Your task to perform on an android device: Open Android settings Image 0: 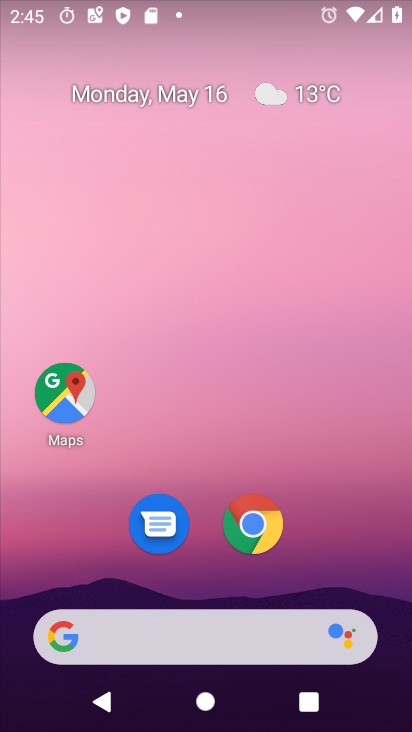
Step 0: drag from (372, 550) to (349, 120)
Your task to perform on an android device: Open Android settings Image 1: 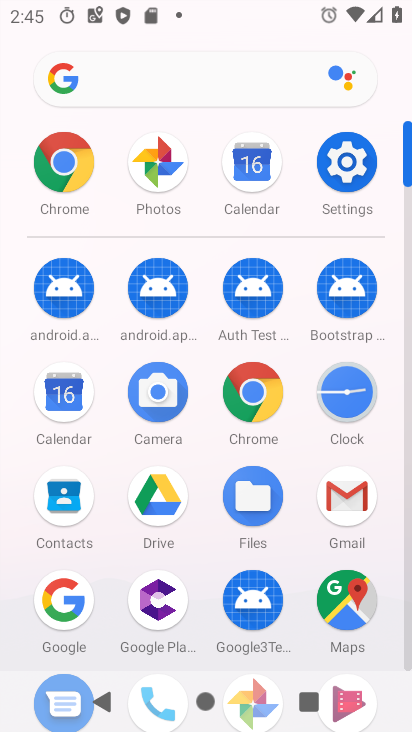
Step 1: click (353, 165)
Your task to perform on an android device: Open Android settings Image 2: 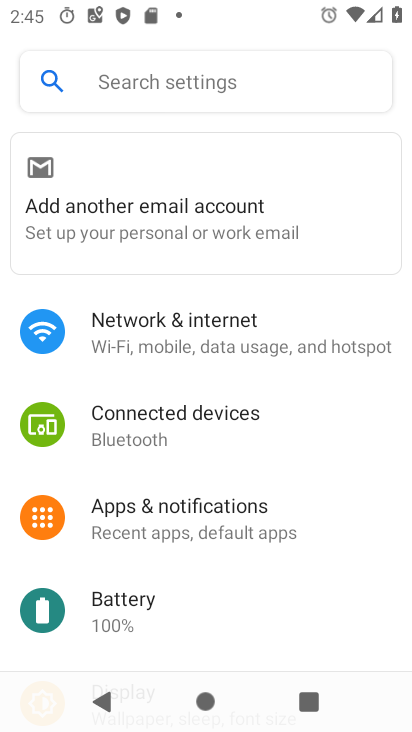
Step 2: drag from (224, 597) to (231, 135)
Your task to perform on an android device: Open Android settings Image 3: 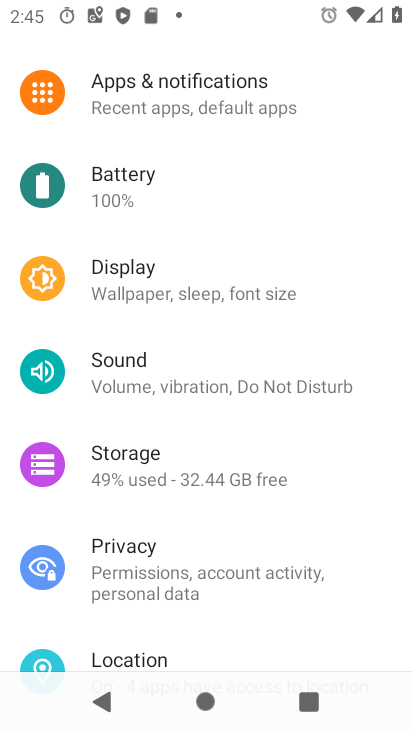
Step 3: drag from (241, 609) to (254, 91)
Your task to perform on an android device: Open Android settings Image 4: 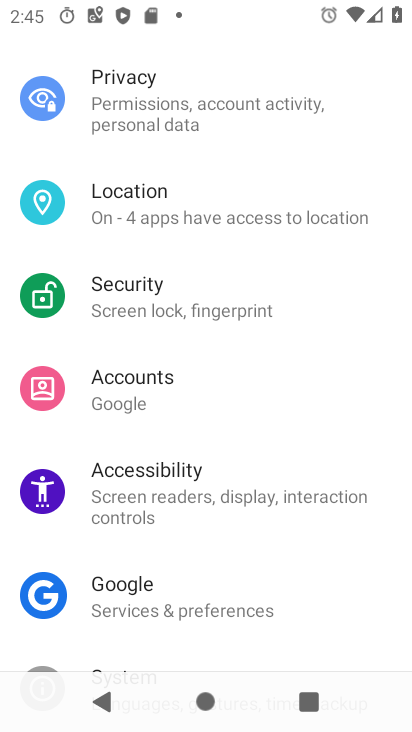
Step 4: drag from (236, 535) to (226, 103)
Your task to perform on an android device: Open Android settings Image 5: 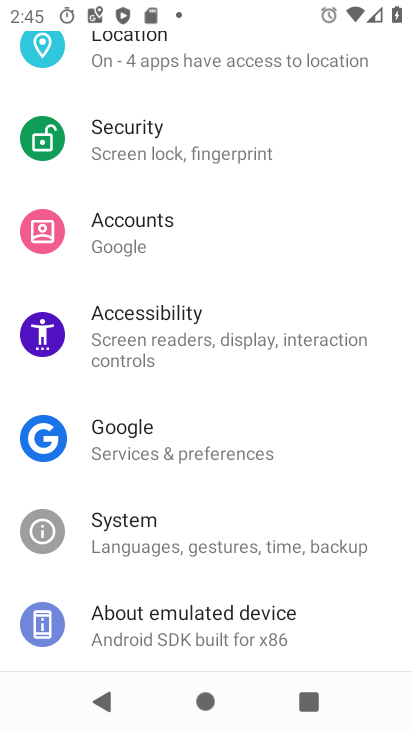
Step 5: click (220, 623)
Your task to perform on an android device: Open Android settings Image 6: 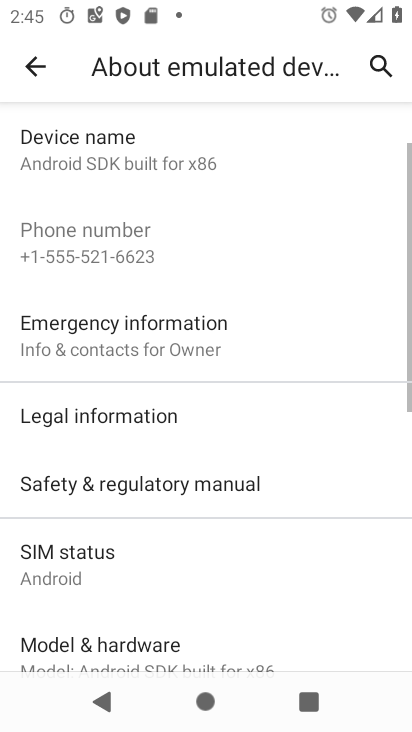
Step 6: task complete